Your task to perform on an android device: Open Youtube and go to "Your channel" Image 0: 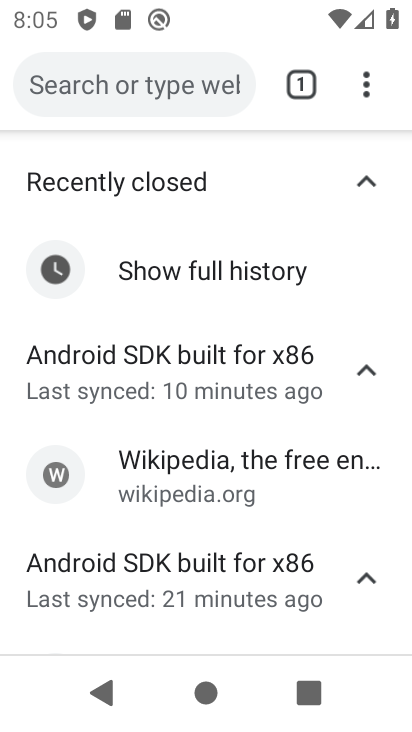
Step 0: press back button
Your task to perform on an android device: Open Youtube and go to "Your channel" Image 1: 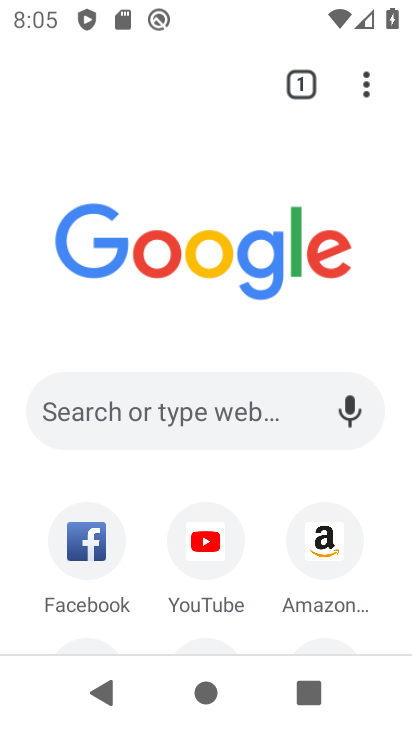
Step 1: press back button
Your task to perform on an android device: Open Youtube and go to "Your channel" Image 2: 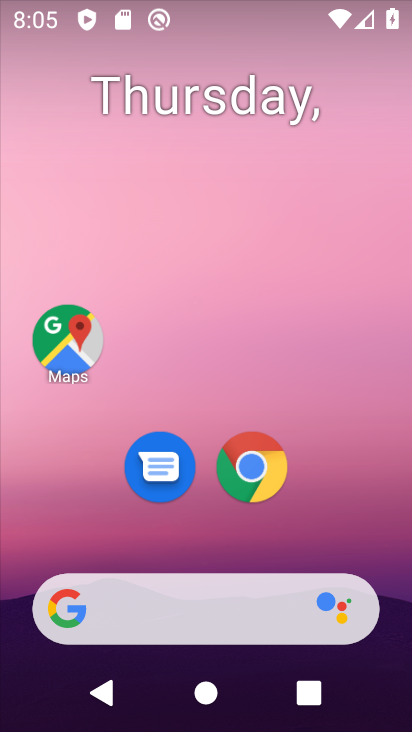
Step 2: drag from (241, 524) to (301, 80)
Your task to perform on an android device: Open Youtube and go to "Your channel" Image 3: 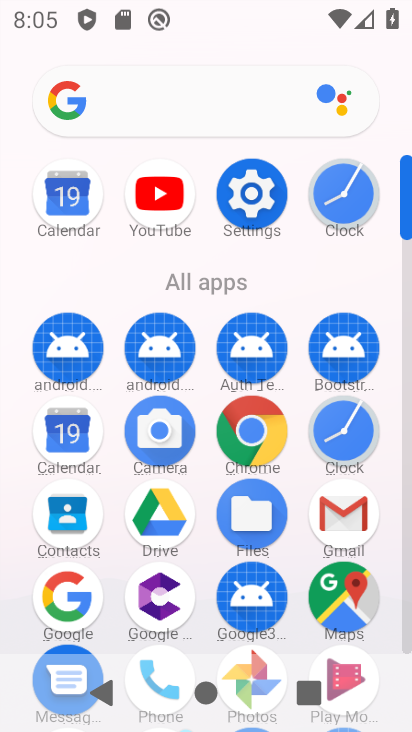
Step 3: click (162, 208)
Your task to perform on an android device: Open Youtube and go to "Your channel" Image 4: 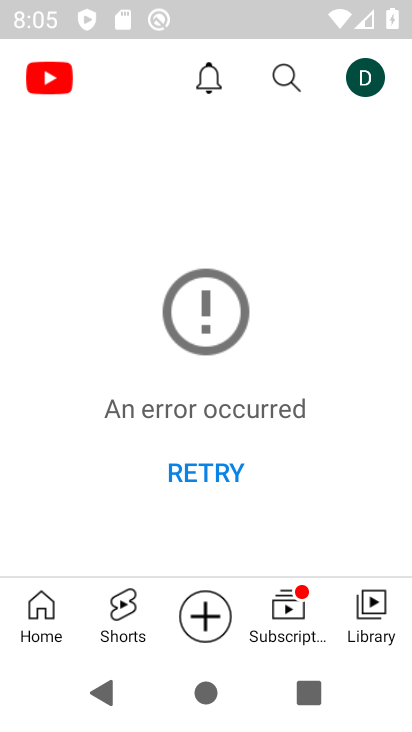
Step 4: click (375, 80)
Your task to perform on an android device: Open Youtube and go to "Your channel" Image 5: 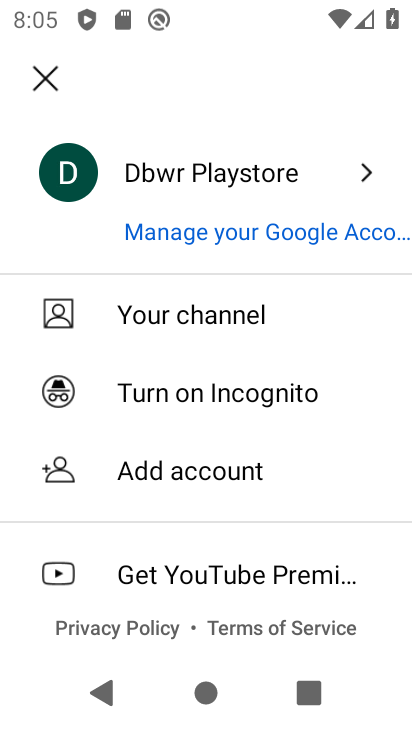
Step 5: click (162, 298)
Your task to perform on an android device: Open Youtube and go to "Your channel" Image 6: 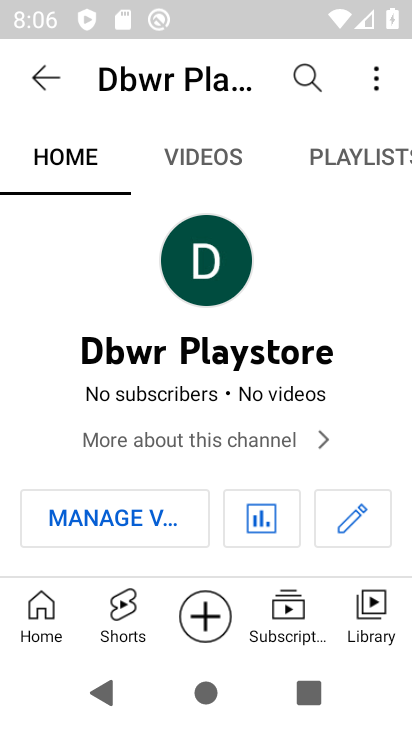
Step 6: task complete